Your task to perform on an android device: Show me the alarms in the clock app Image 0: 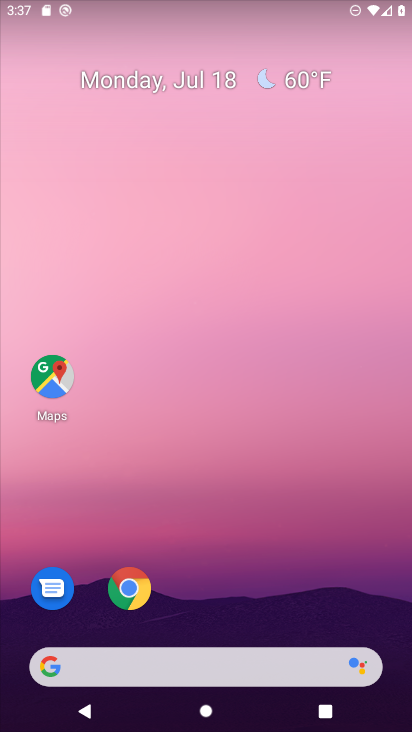
Step 0: press home button
Your task to perform on an android device: Show me the alarms in the clock app Image 1: 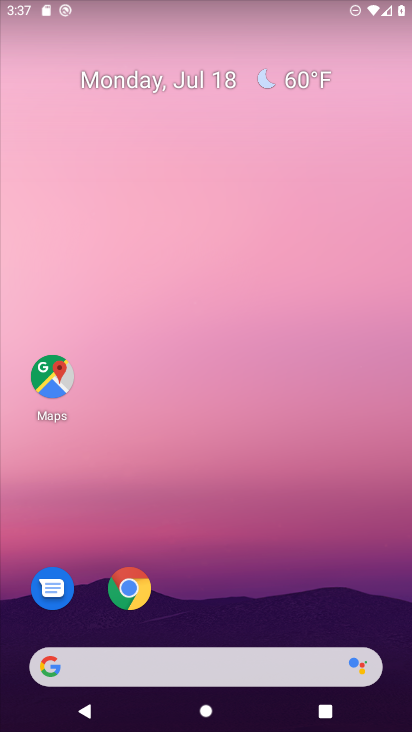
Step 1: drag from (272, 617) to (300, 1)
Your task to perform on an android device: Show me the alarms in the clock app Image 2: 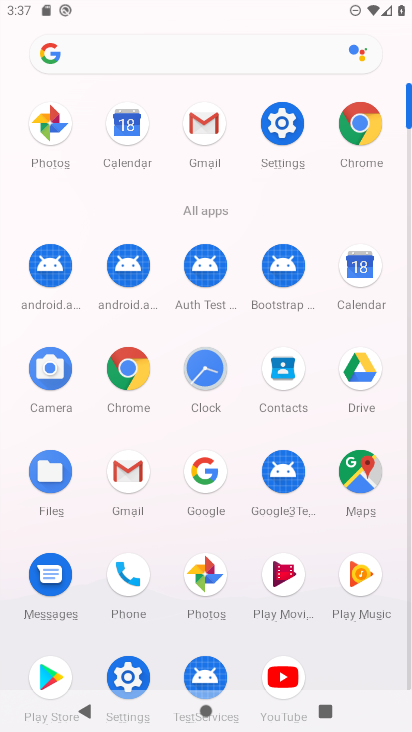
Step 2: click (202, 371)
Your task to perform on an android device: Show me the alarms in the clock app Image 3: 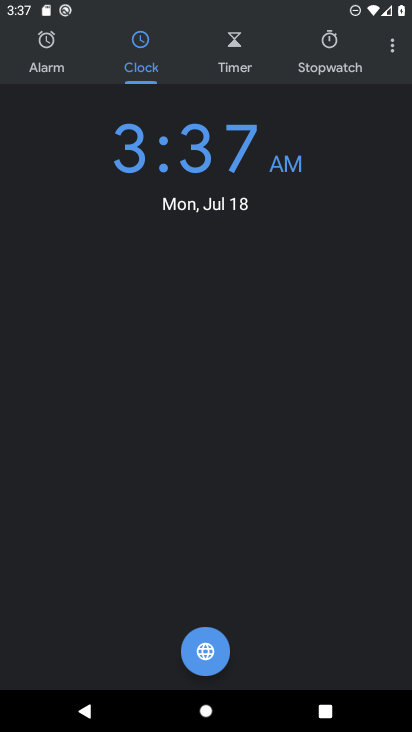
Step 3: click (381, 39)
Your task to perform on an android device: Show me the alarms in the clock app Image 4: 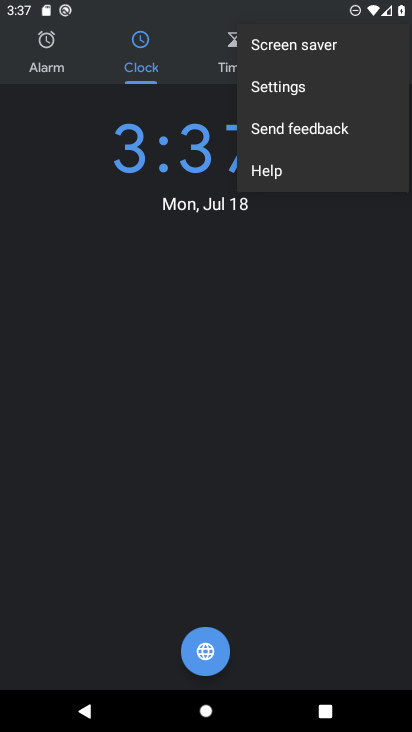
Step 4: click (81, 284)
Your task to perform on an android device: Show me the alarms in the clock app Image 5: 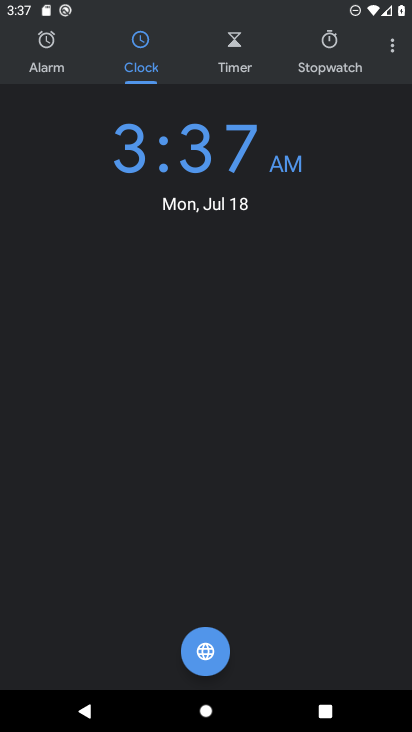
Step 5: click (55, 54)
Your task to perform on an android device: Show me the alarms in the clock app Image 6: 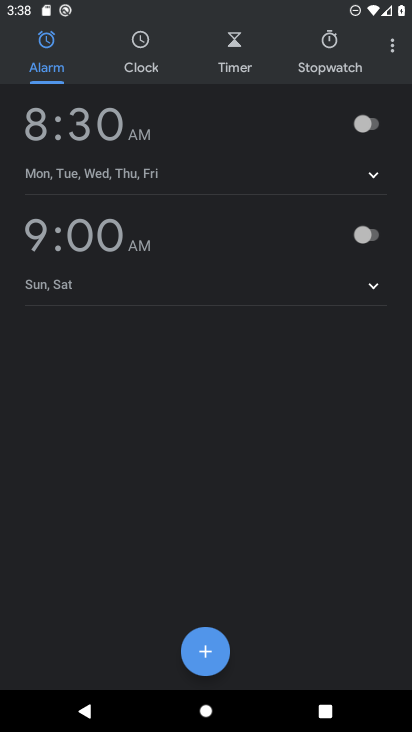
Step 6: click (375, 131)
Your task to perform on an android device: Show me the alarms in the clock app Image 7: 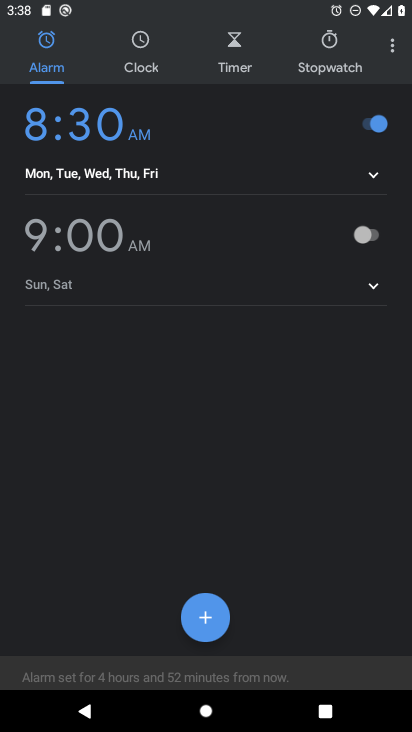
Step 7: task complete